Your task to perform on an android device: add a contact in the contacts app Image 0: 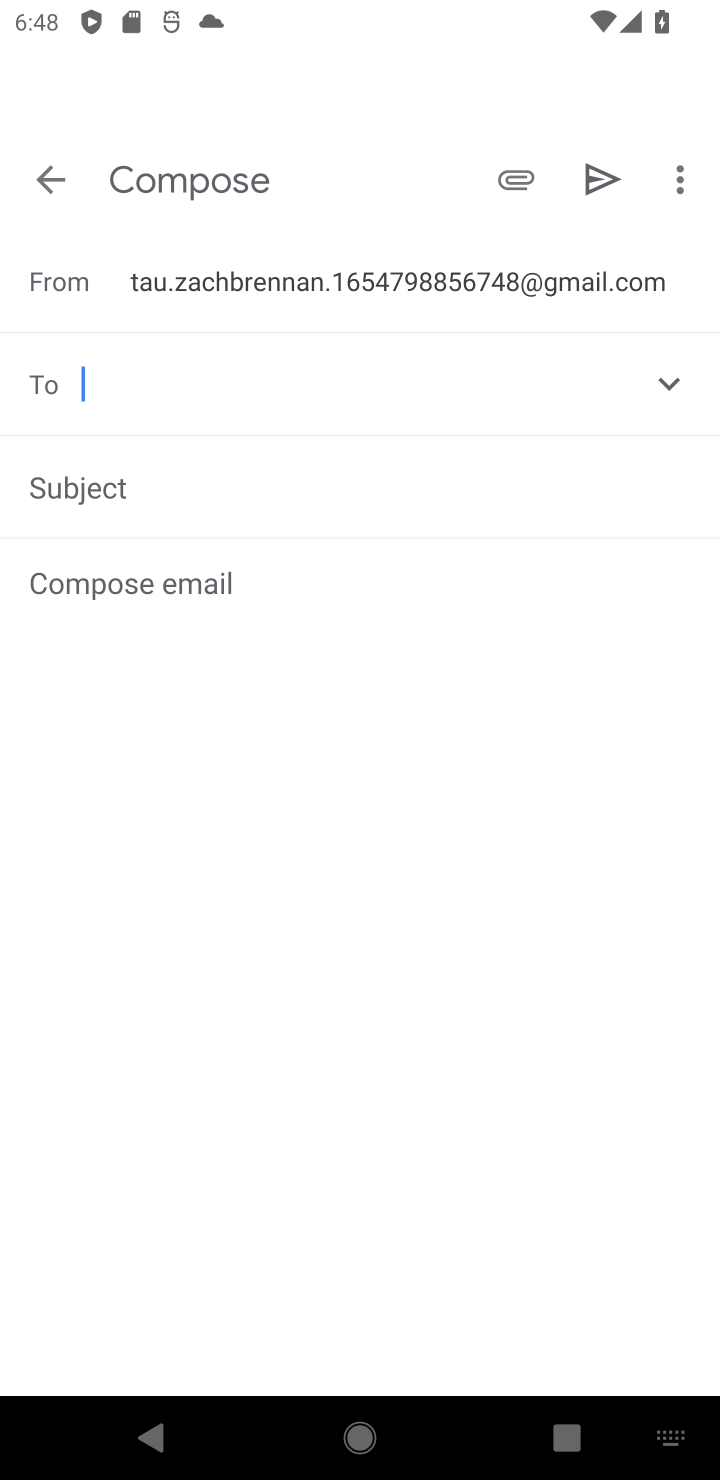
Step 0: press home button
Your task to perform on an android device: add a contact in the contacts app Image 1: 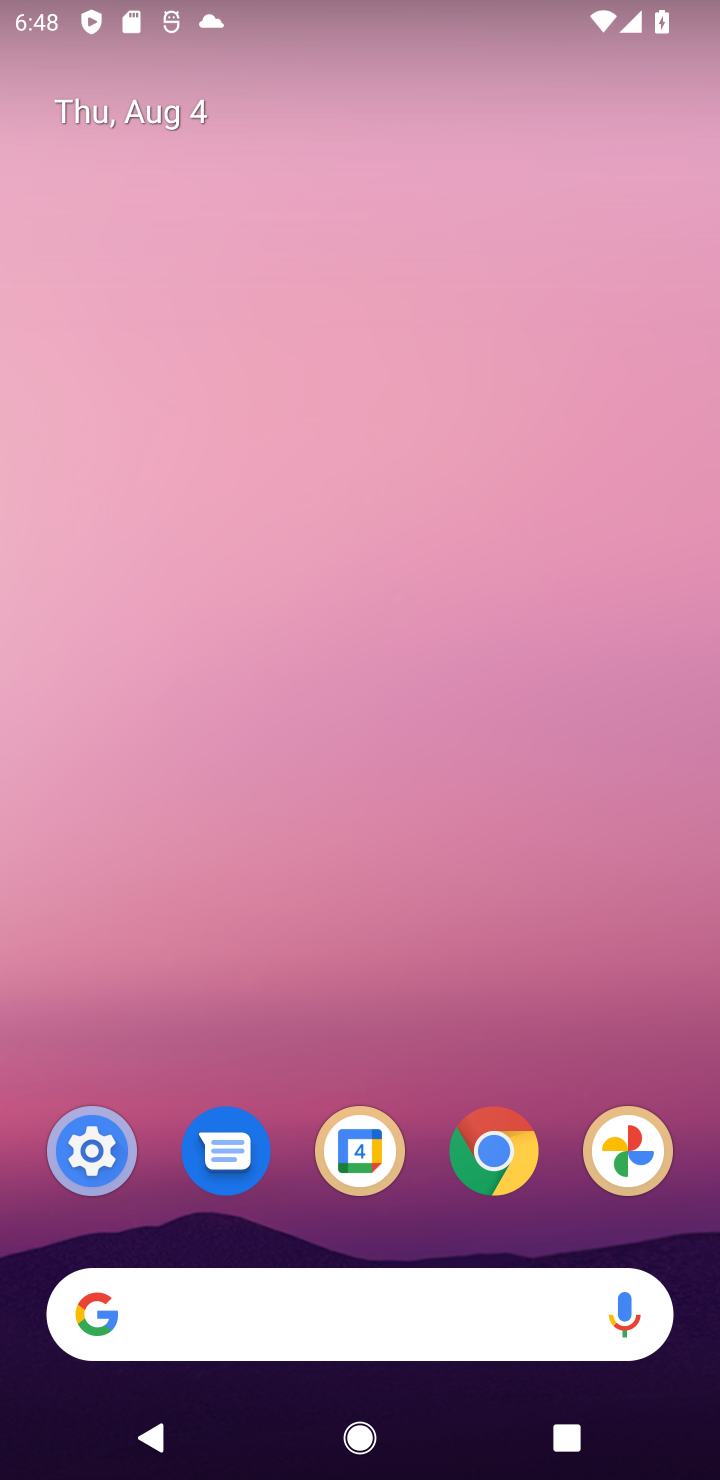
Step 1: drag from (371, 1231) to (356, 34)
Your task to perform on an android device: add a contact in the contacts app Image 2: 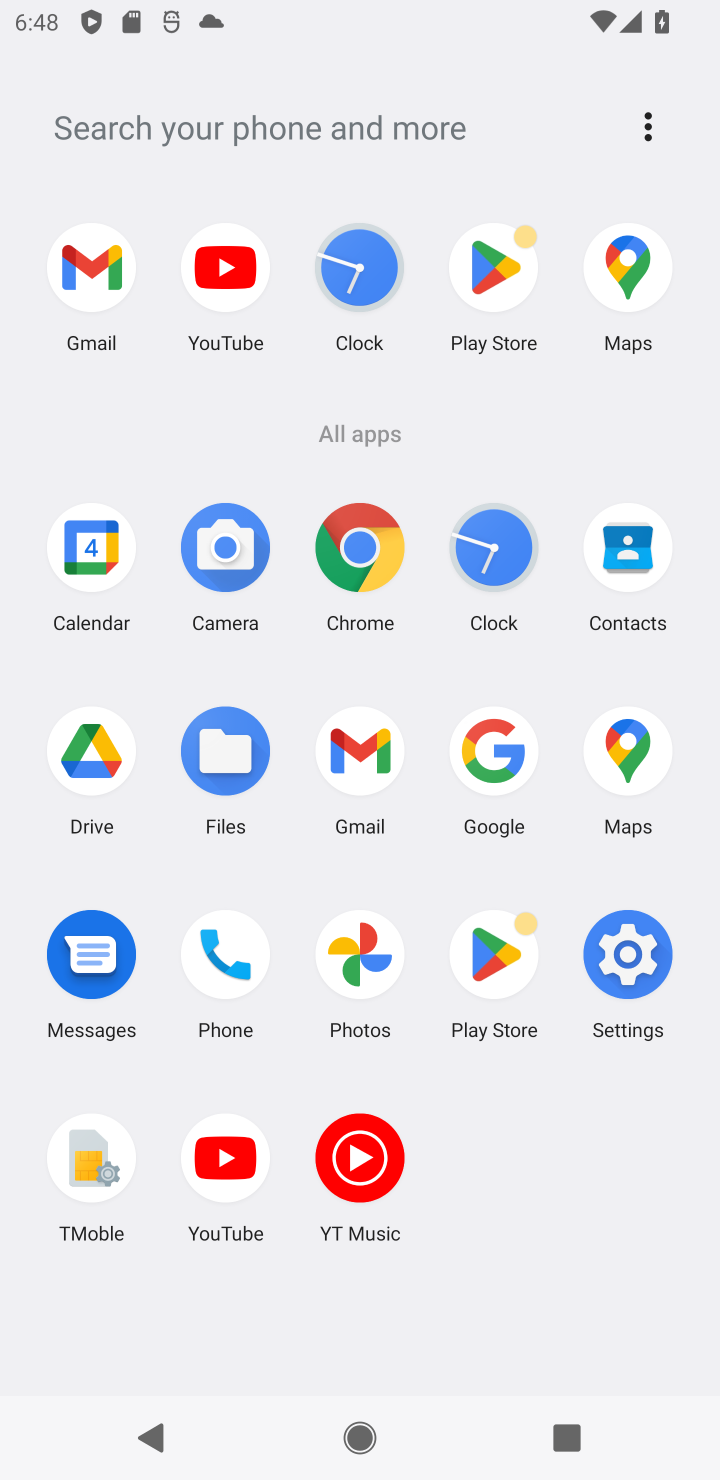
Step 2: click (643, 582)
Your task to perform on an android device: add a contact in the contacts app Image 3: 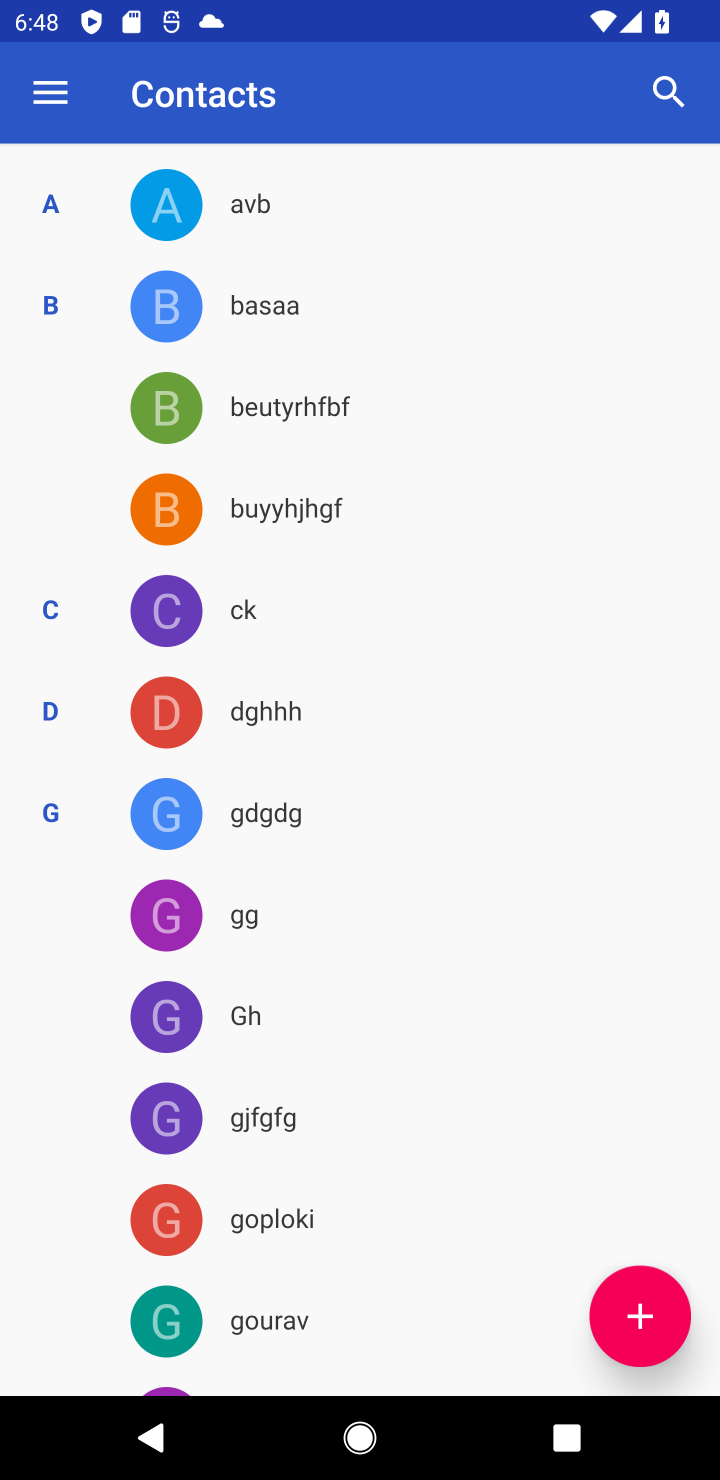
Step 3: click (615, 1311)
Your task to perform on an android device: add a contact in the contacts app Image 4: 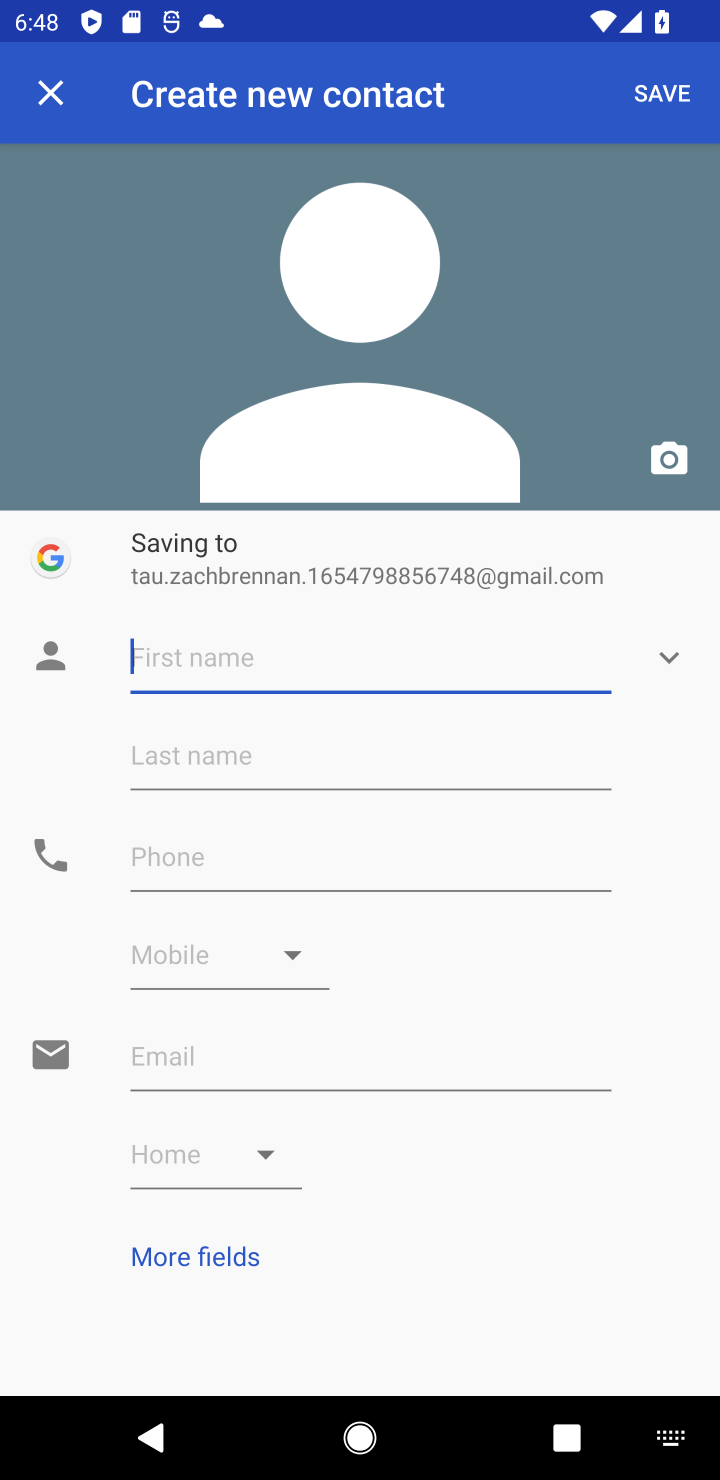
Step 4: type "polannn"
Your task to perform on an android device: add a contact in the contacts app Image 5: 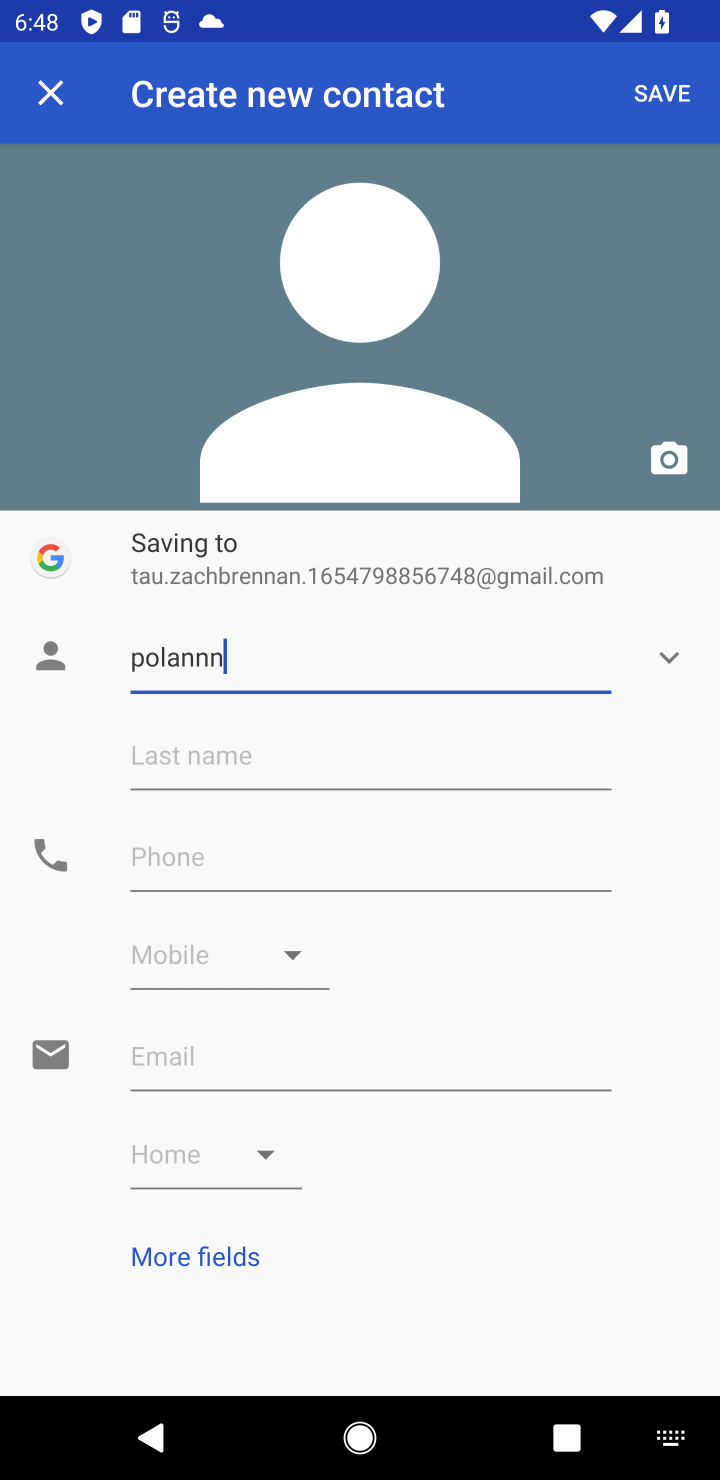
Step 5: click (680, 81)
Your task to perform on an android device: add a contact in the contacts app Image 6: 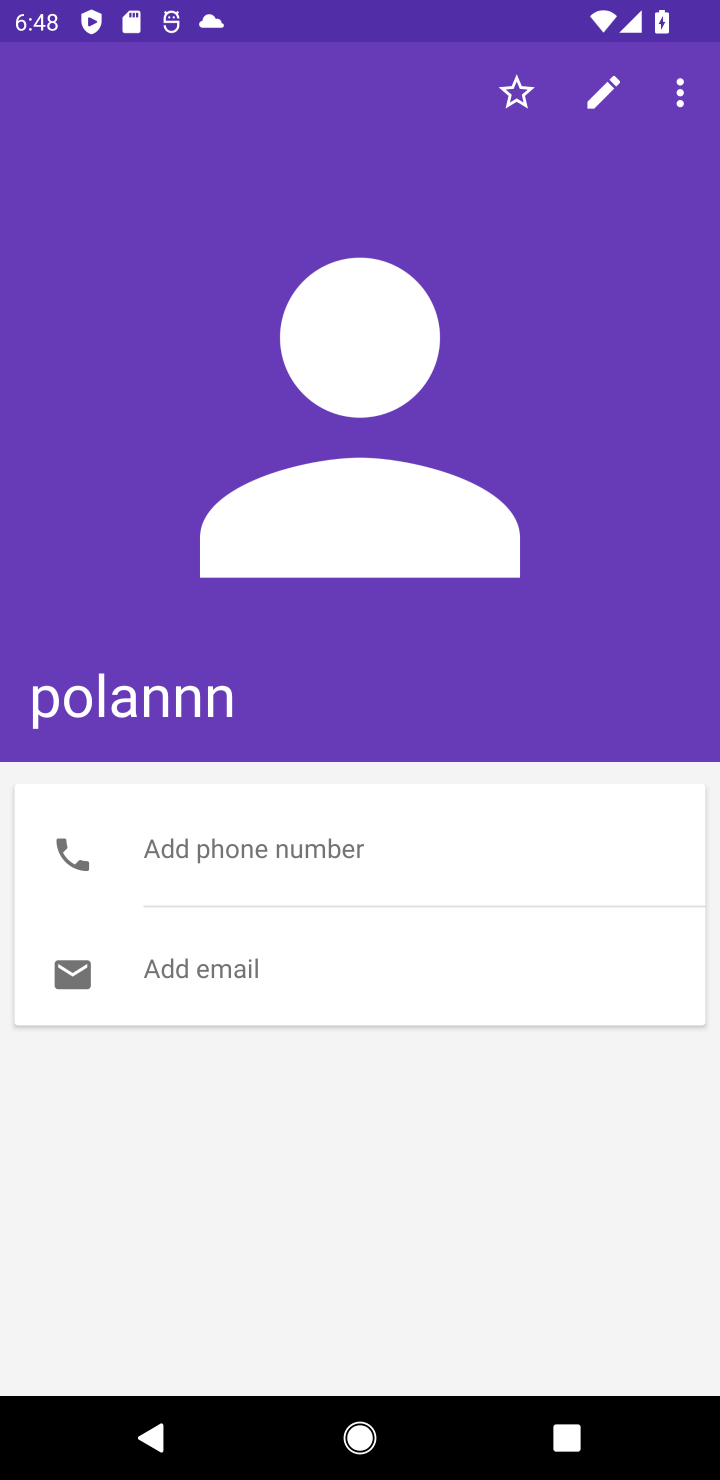
Step 6: task complete